Your task to perform on an android device: change text size in settings app Image 0: 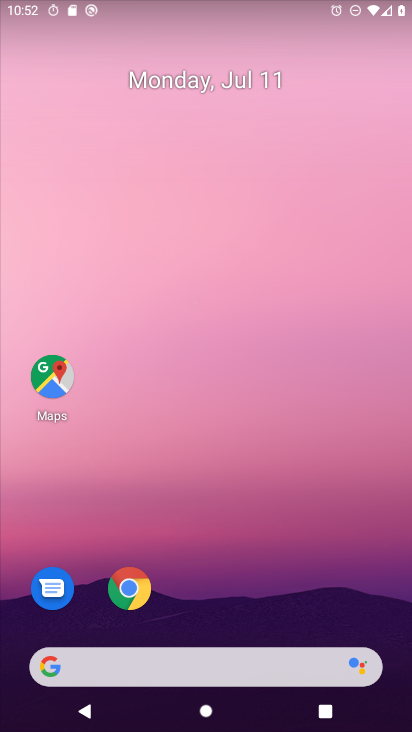
Step 0: drag from (257, 486) to (345, 0)
Your task to perform on an android device: change text size in settings app Image 1: 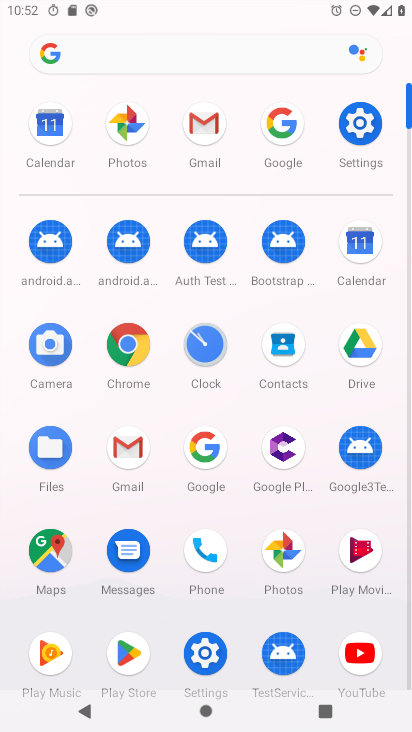
Step 1: click (371, 122)
Your task to perform on an android device: change text size in settings app Image 2: 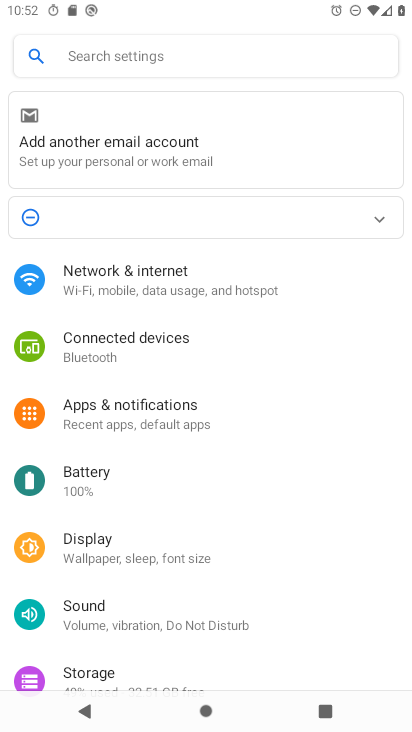
Step 2: click (151, 61)
Your task to perform on an android device: change text size in settings app Image 3: 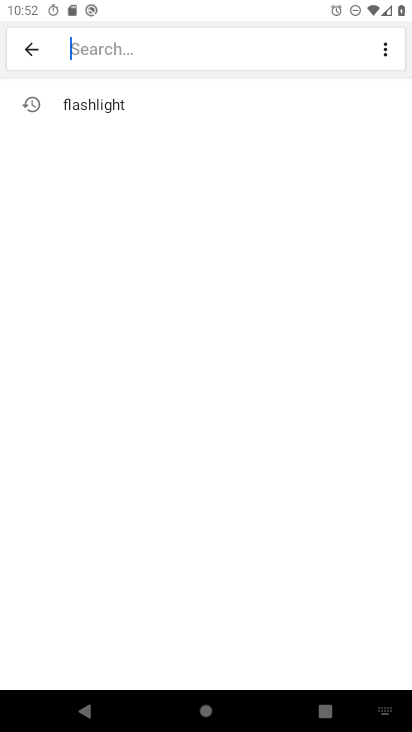
Step 3: type "text size"
Your task to perform on an android device: change text size in settings app Image 4: 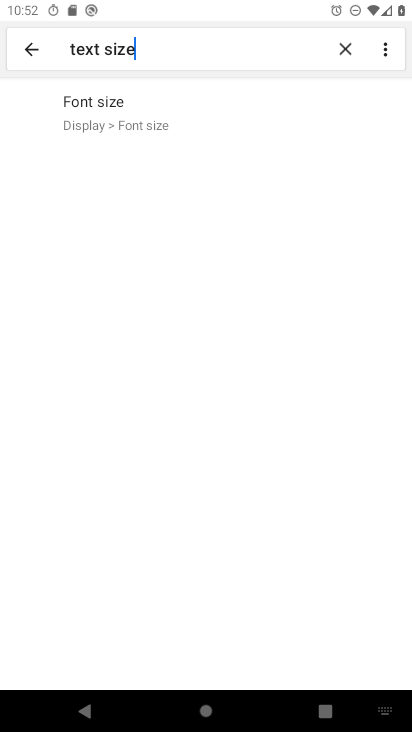
Step 4: click (49, 122)
Your task to perform on an android device: change text size in settings app Image 5: 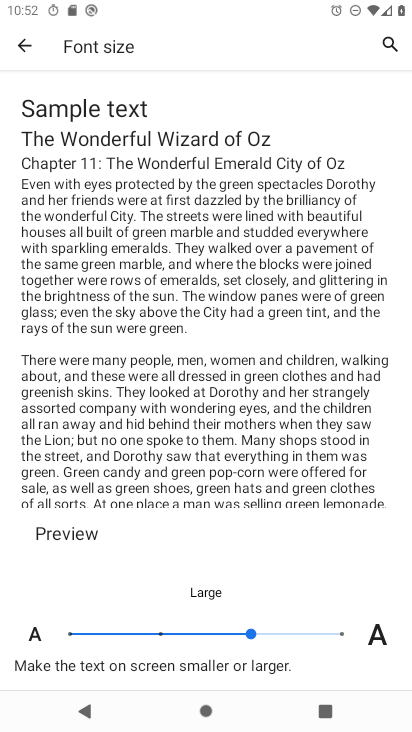
Step 5: task complete